Your task to perform on an android device: Add "jbl flip 4" to the cart on newegg, then select checkout. Image 0: 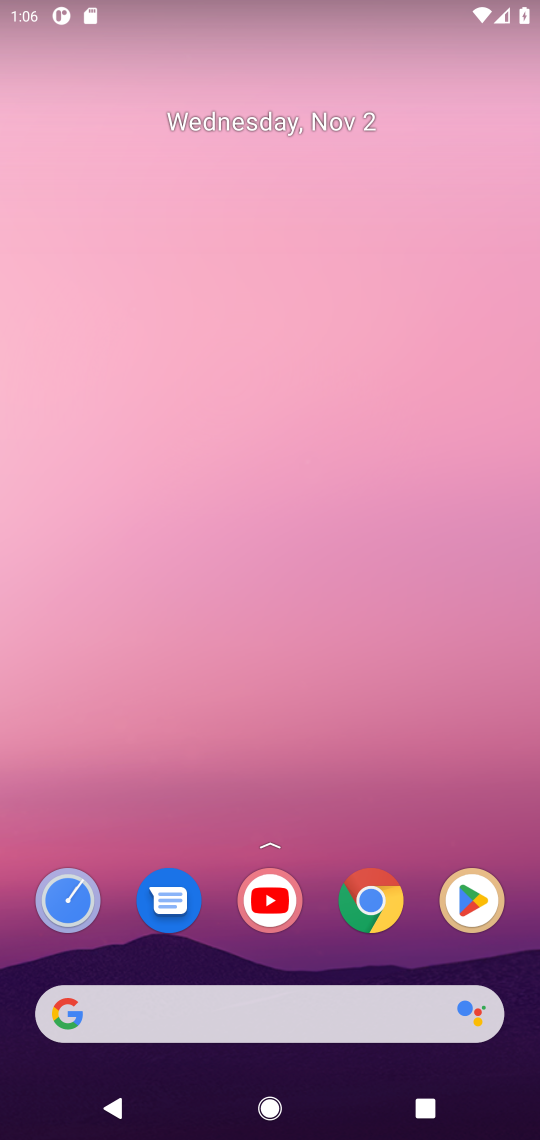
Step 0: click (381, 917)
Your task to perform on an android device: Add "jbl flip 4" to the cart on newegg, then select checkout. Image 1: 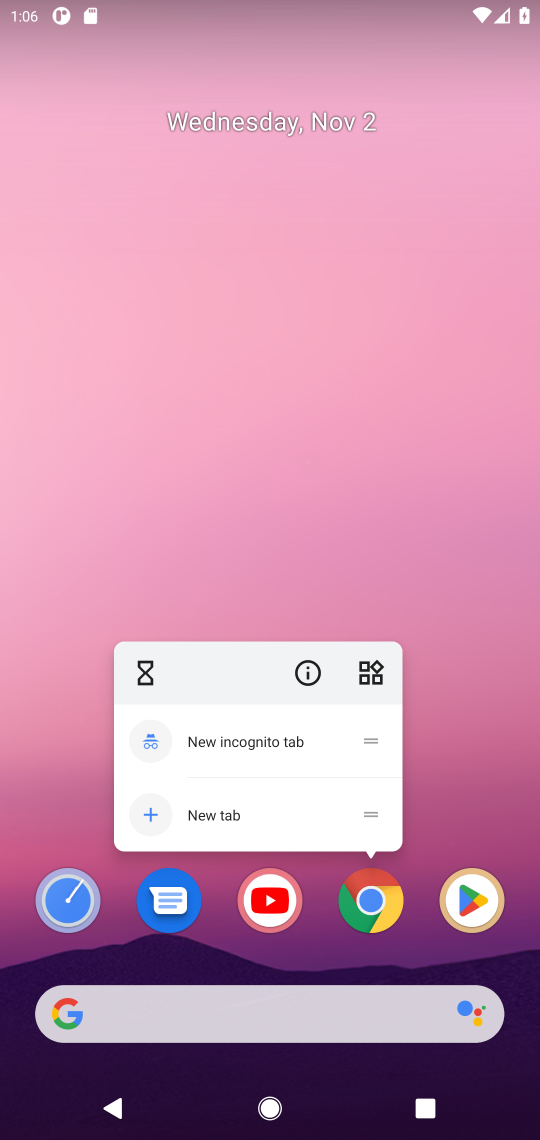
Step 1: click (368, 908)
Your task to perform on an android device: Add "jbl flip 4" to the cart on newegg, then select checkout. Image 2: 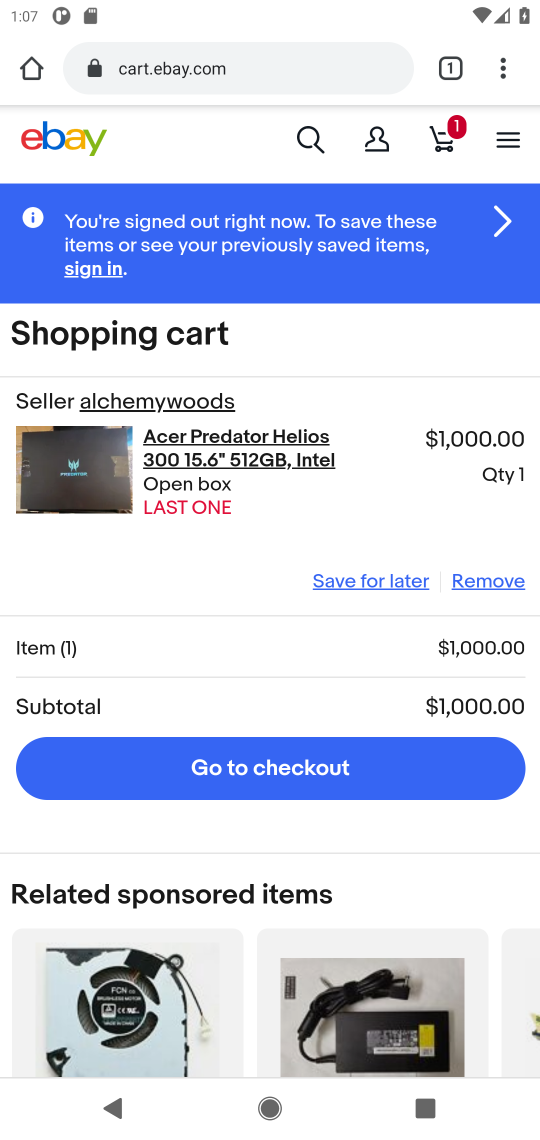
Step 2: click (159, 65)
Your task to perform on an android device: Add "jbl flip 4" to the cart on newegg, then select checkout. Image 3: 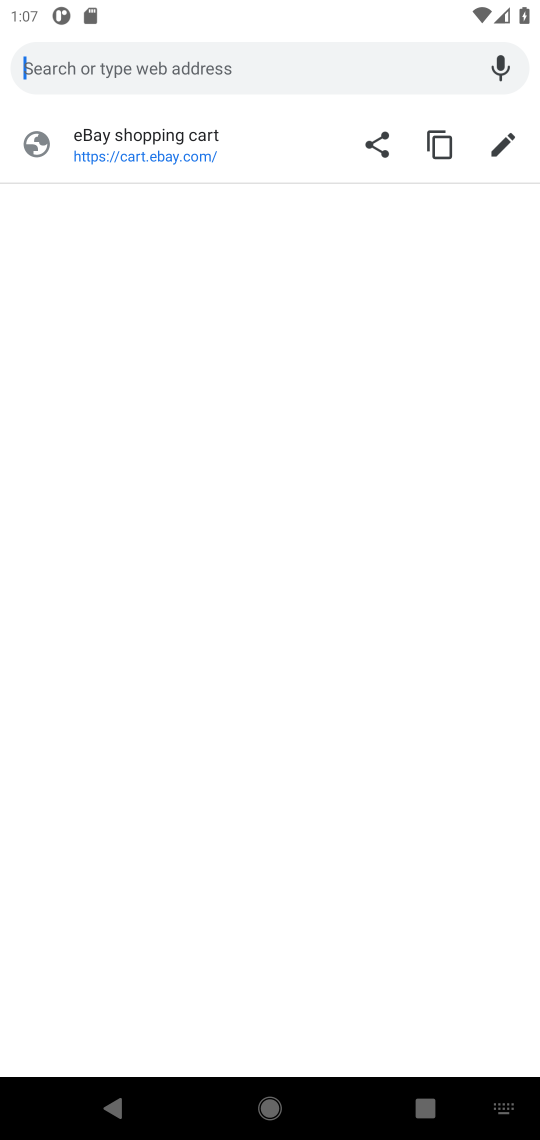
Step 3: type "newegg"
Your task to perform on an android device: Add "jbl flip 4" to the cart on newegg, then select checkout. Image 4: 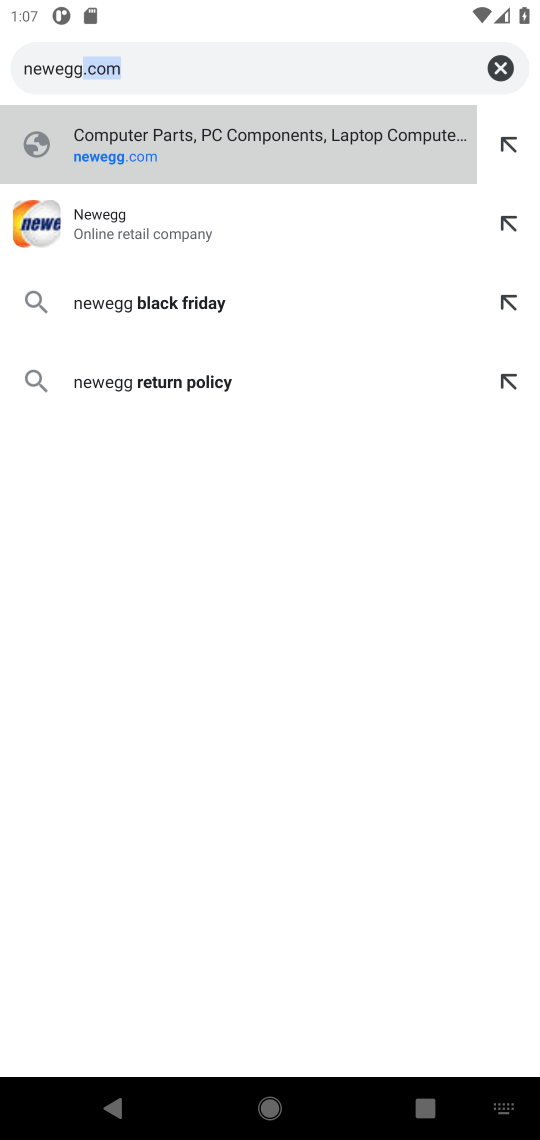
Step 4: type ""
Your task to perform on an android device: Add "jbl flip 4" to the cart on newegg, then select checkout. Image 5: 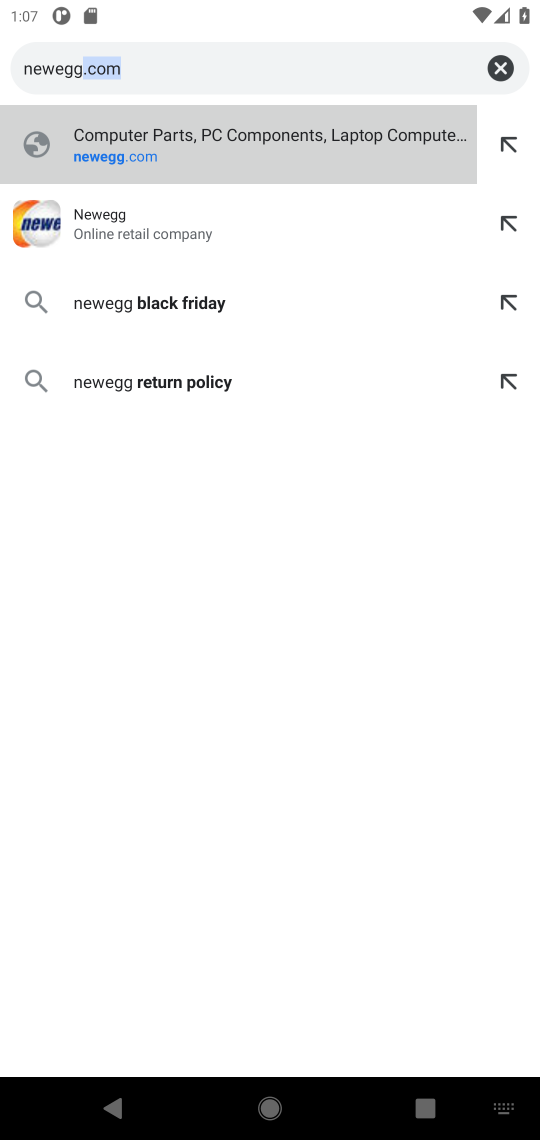
Step 5: click (132, 235)
Your task to perform on an android device: Add "jbl flip 4" to the cart on newegg, then select checkout. Image 6: 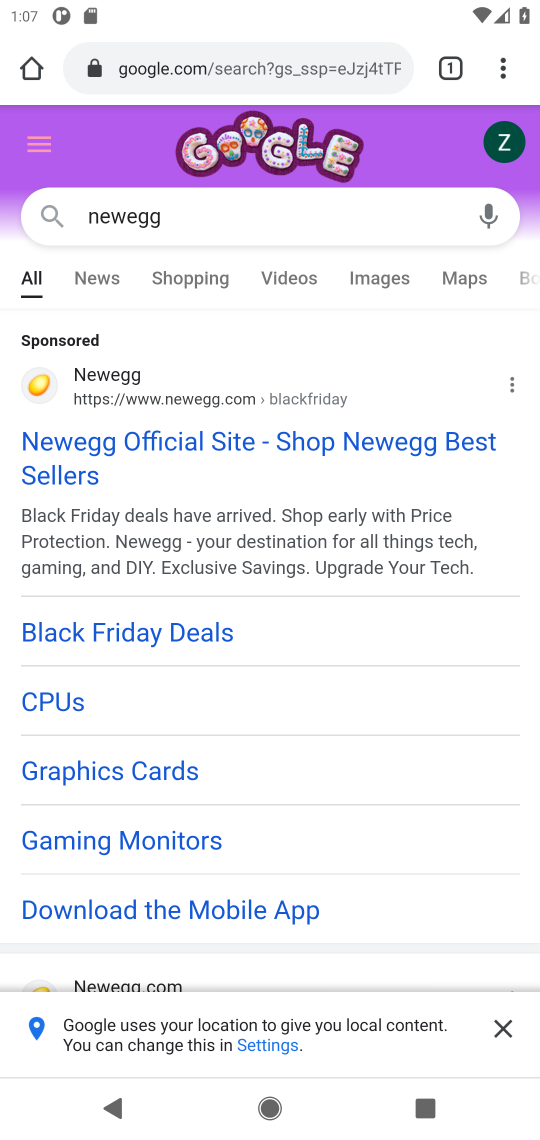
Step 6: drag from (204, 642) to (223, 370)
Your task to perform on an android device: Add "jbl flip 4" to the cart on newegg, then select checkout. Image 7: 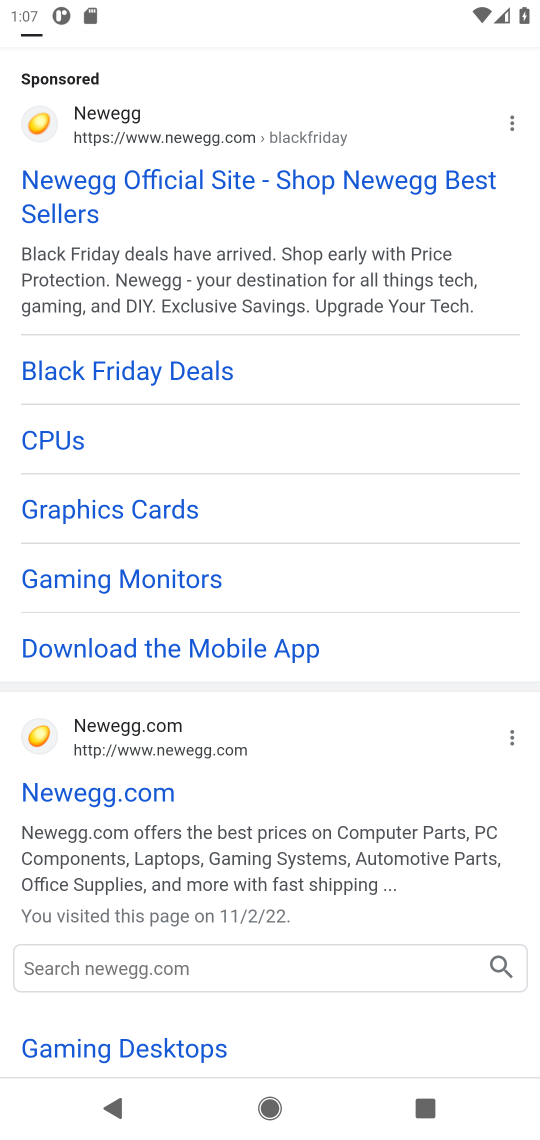
Step 7: drag from (276, 749) to (333, 22)
Your task to perform on an android device: Add "jbl flip 4" to the cart on newegg, then select checkout. Image 8: 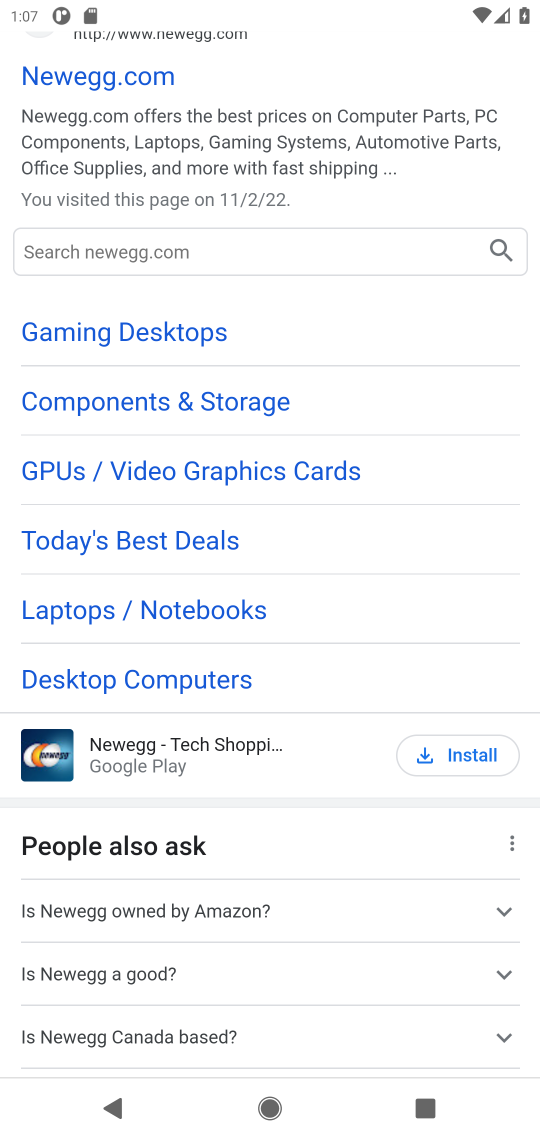
Step 8: drag from (303, 330) to (332, 1084)
Your task to perform on an android device: Add "jbl flip 4" to the cart on newegg, then select checkout. Image 9: 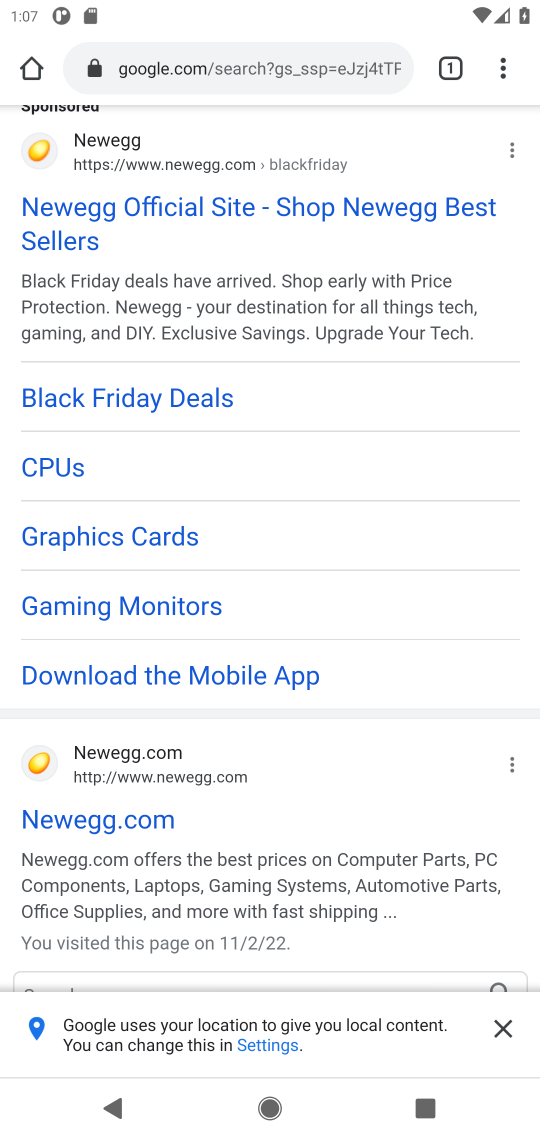
Step 9: drag from (253, 430) to (287, 1075)
Your task to perform on an android device: Add "jbl flip 4" to the cart on newegg, then select checkout. Image 10: 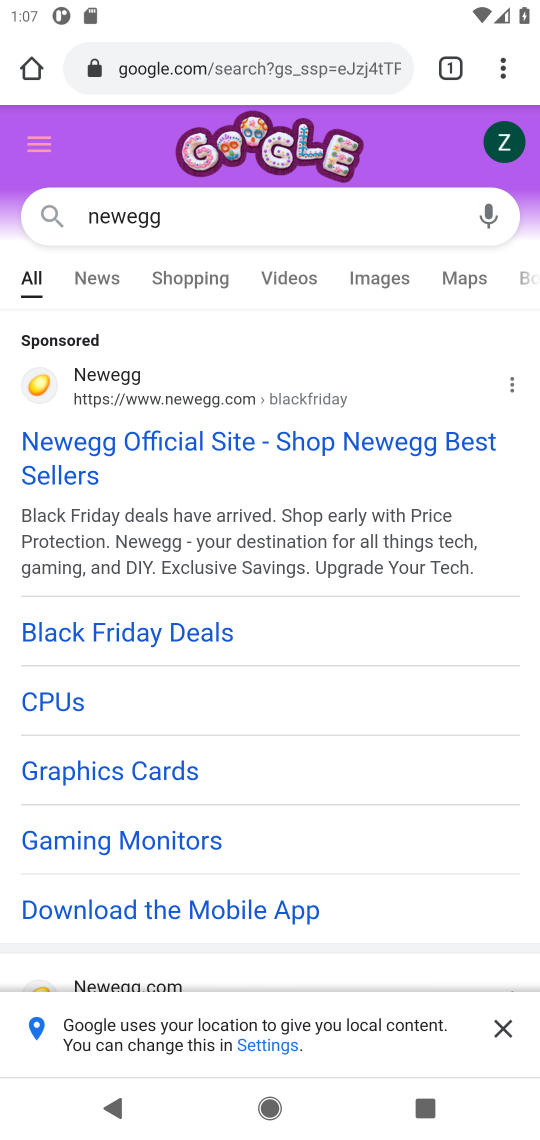
Step 10: click (136, 438)
Your task to perform on an android device: Add "jbl flip 4" to the cart on newegg, then select checkout. Image 11: 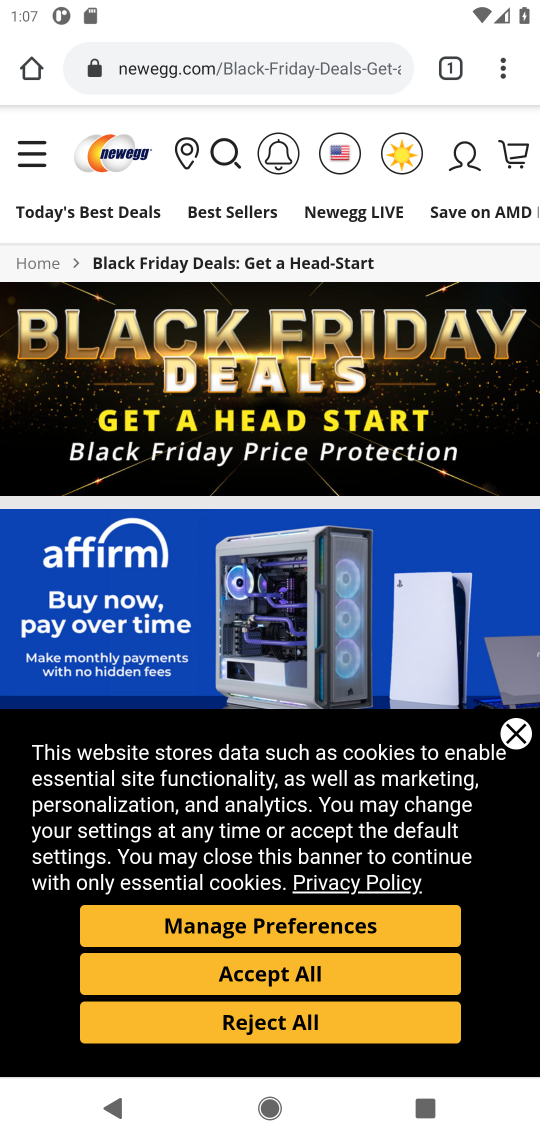
Step 11: click (261, 154)
Your task to perform on an android device: Add "jbl flip 4" to the cart on newegg, then select checkout. Image 12: 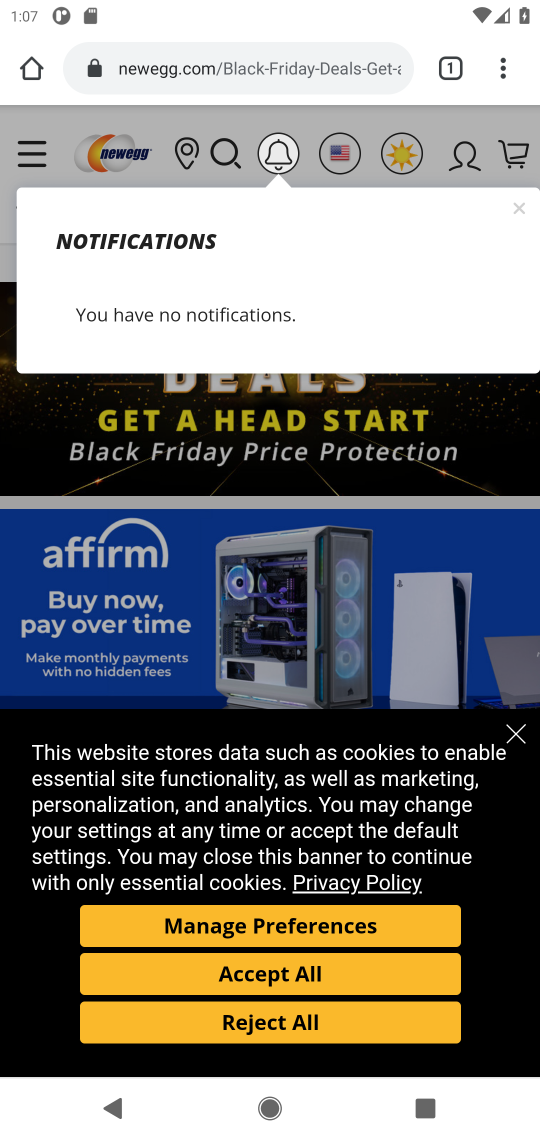
Step 12: click (236, 150)
Your task to perform on an android device: Add "jbl flip 4" to the cart on newegg, then select checkout. Image 13: 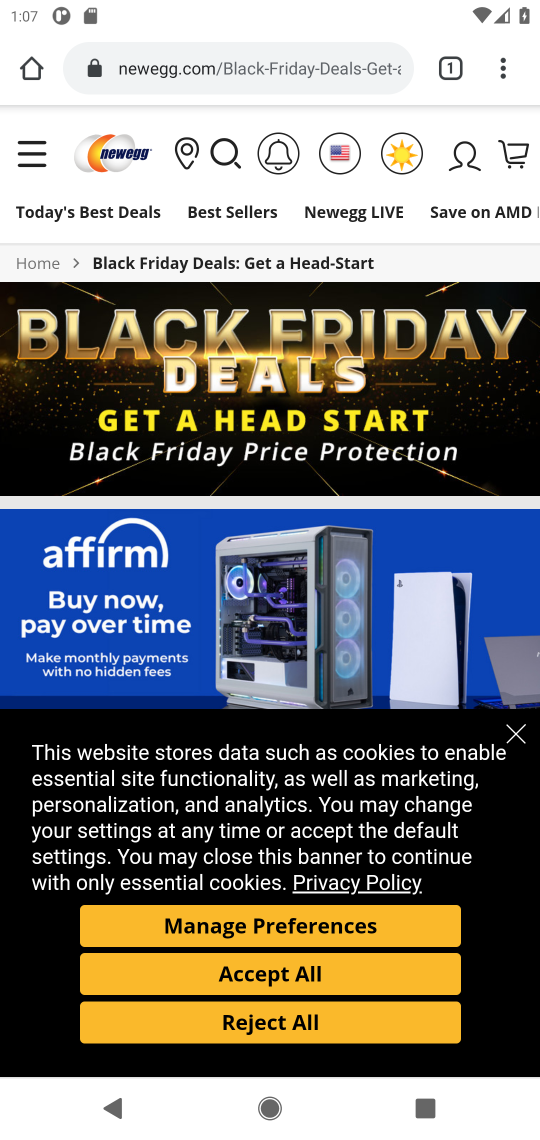
Step 13: click (242, 968)
Your task to perform on an android device: Add "jbl flip 4" to the cart on newegg, then select checkout. Image 14: 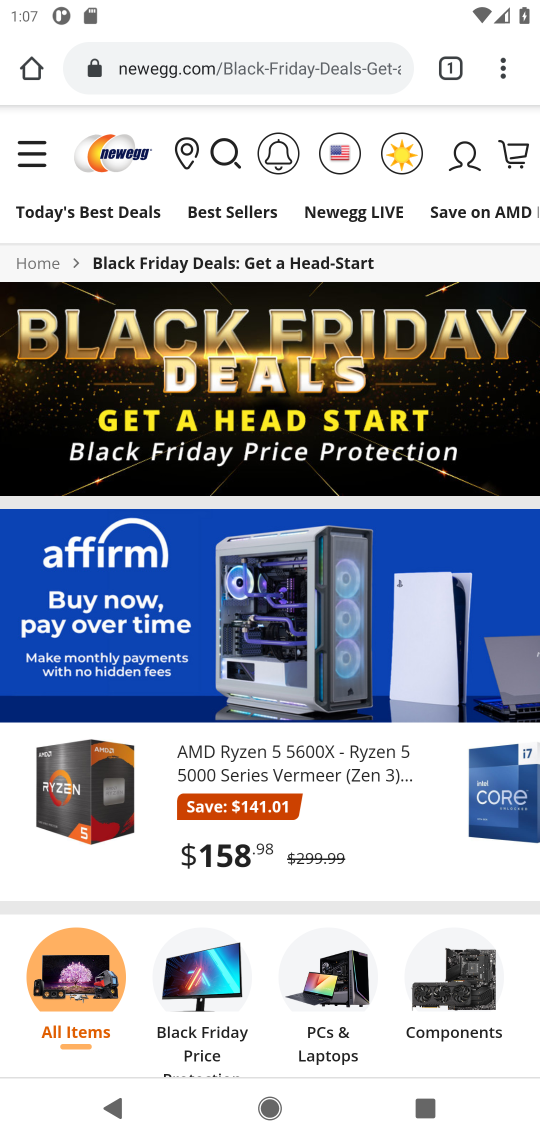
Step 14: click (516, 725)
Your task to perform on an android device: Add "jbl flip 4" to the cart on newegg, then select checkout. Image 15: 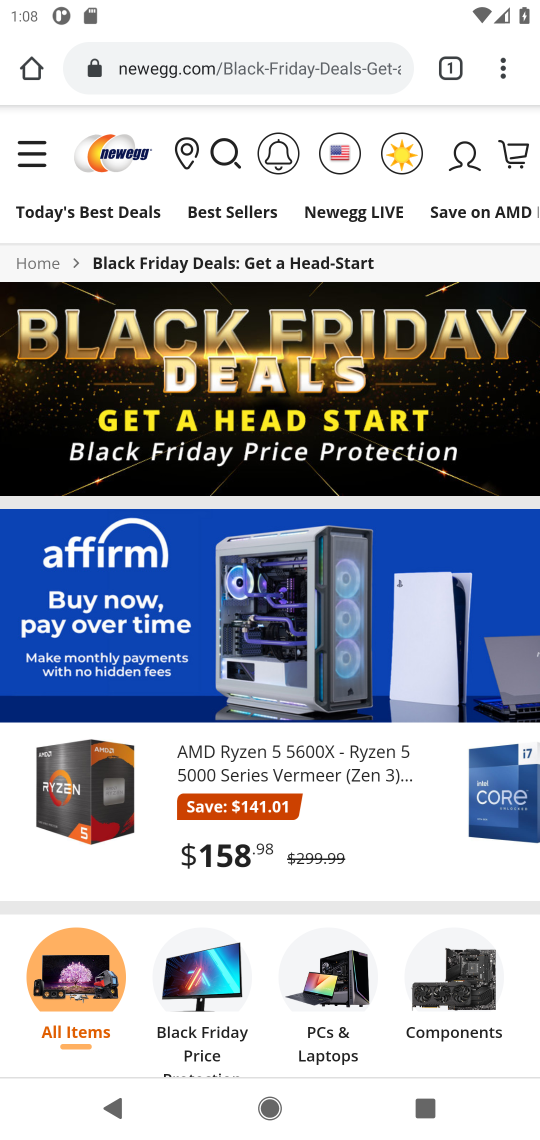
Step 15: click (229, 133)
Your task to perform on an android device: Add "jbl flip 4" to the cart on newegg, then select checkout. Image 16: 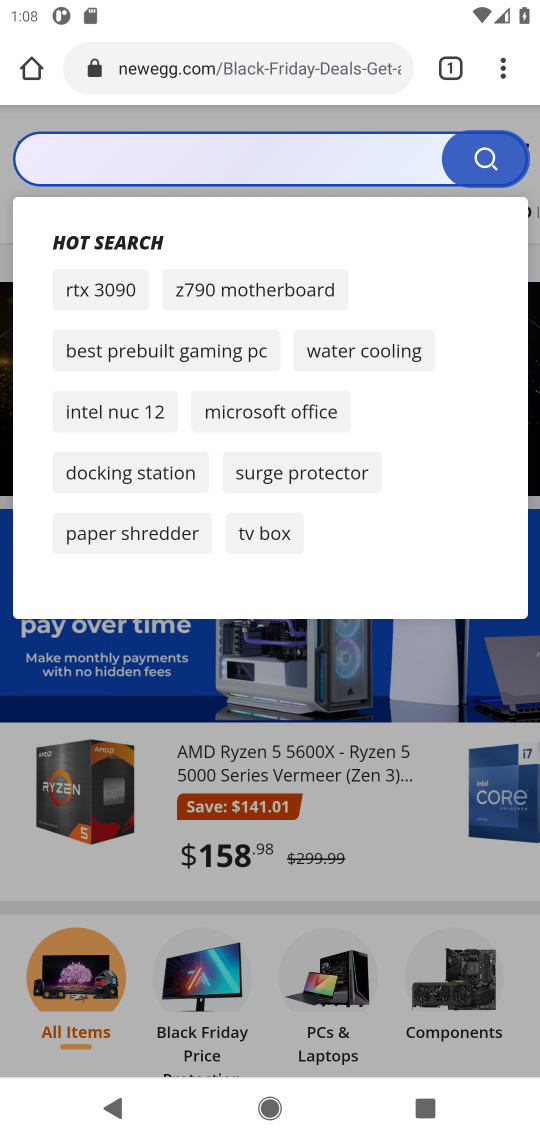
Step 16: click (204, 163)
Your task to perform on an android device: Add "jbl flip 4" to the cart on newegg, then select checkout. Image 17: 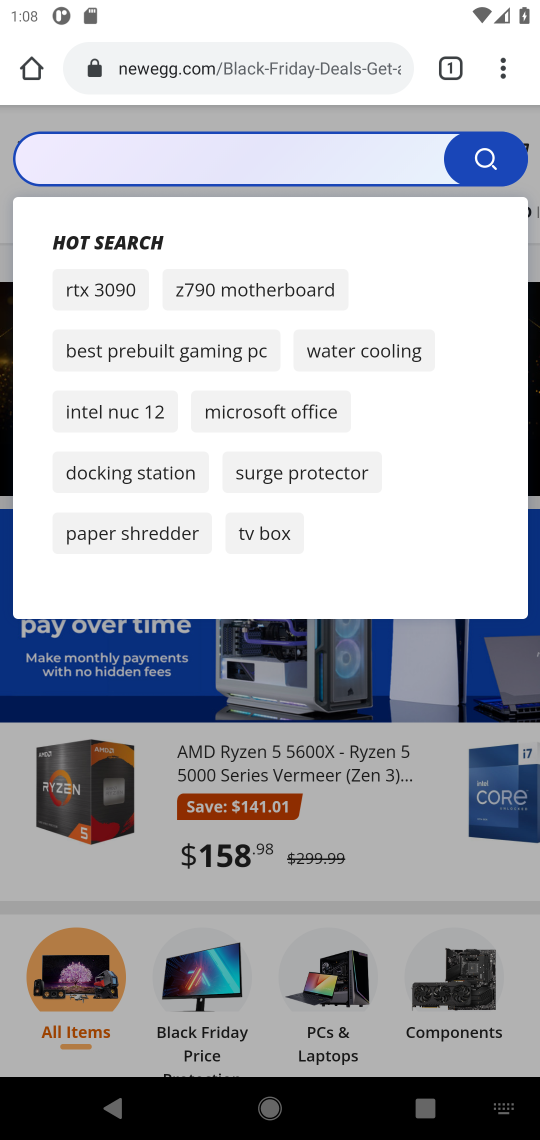
Step 17: type "jbl flip 4"
Your task to perform on an android device: Add "jbl flip 4" to the cart on newegg, then select checkout. Image 18: 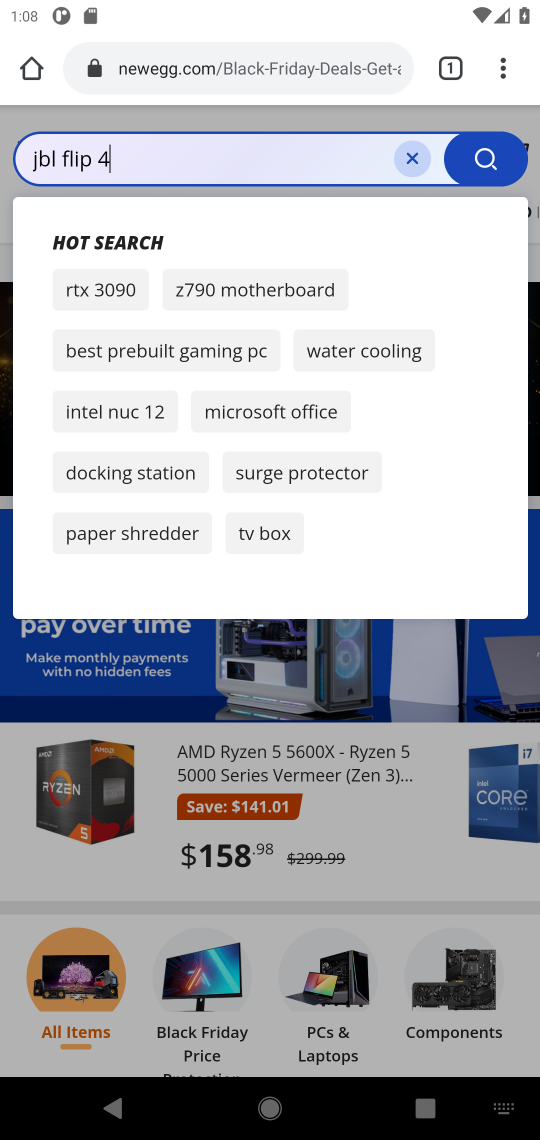
Step 18: type ""
Your task to perform on an android device: Add "jbl flip 4" to the cart on newegg, then select checkout. Image 19: 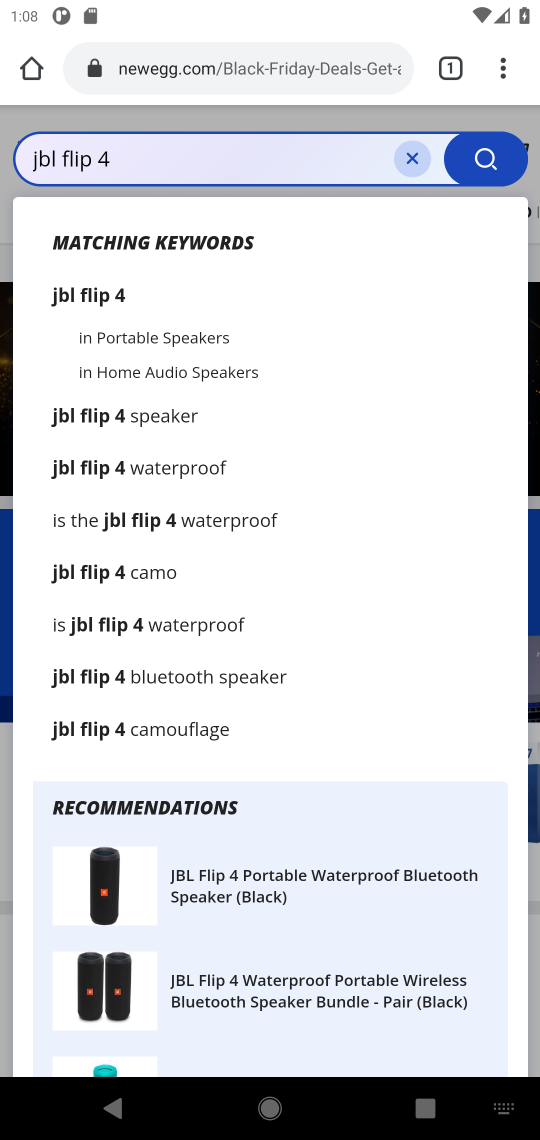
Step 19: click (93, 296)
Your task to perform on an android device: Add "jbl flip 4" to the cart on newegg, then select checkout. Image 20: 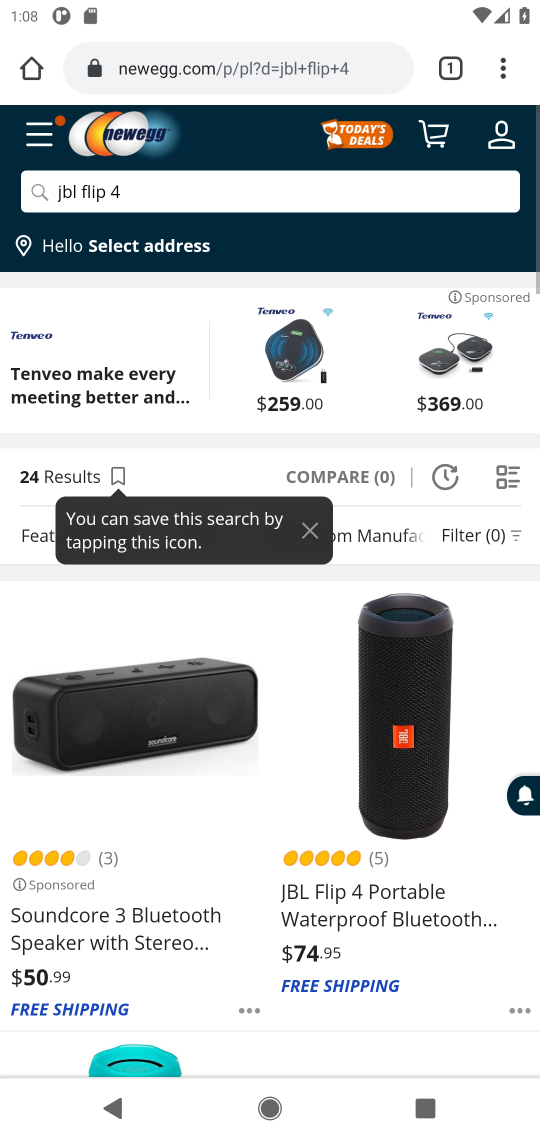
Step 20: click (374, 731)
Your task to perform on an android device: Add "jbl flip 4" to the cart on newegg, then select checkout. Image 21: 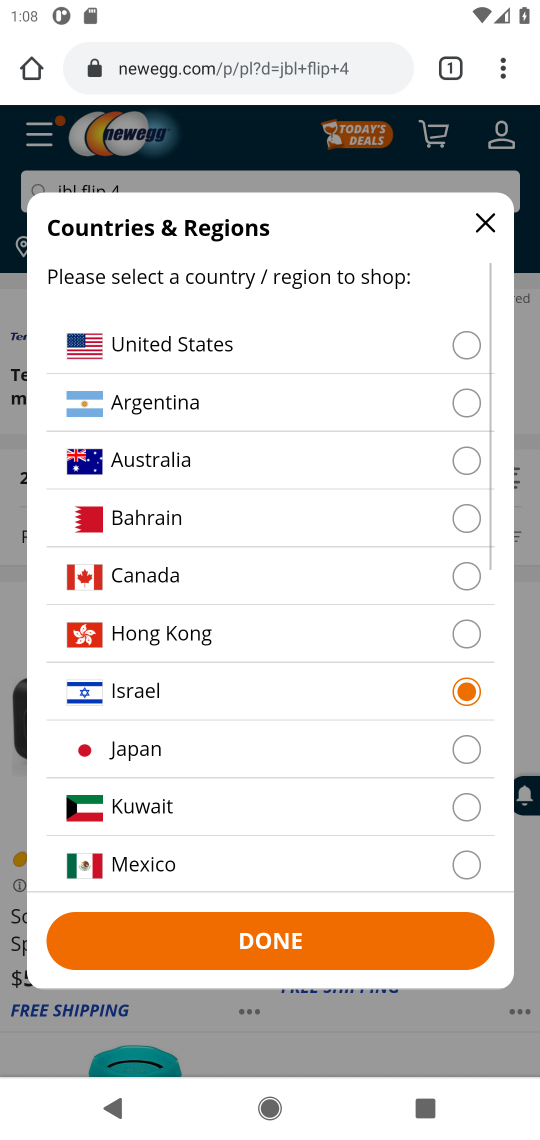
Step 21: click (471, 348)
Your task to perform on an android device: Add "jbl flip 4" to the cart on newegg, then select checkout. Image 22: 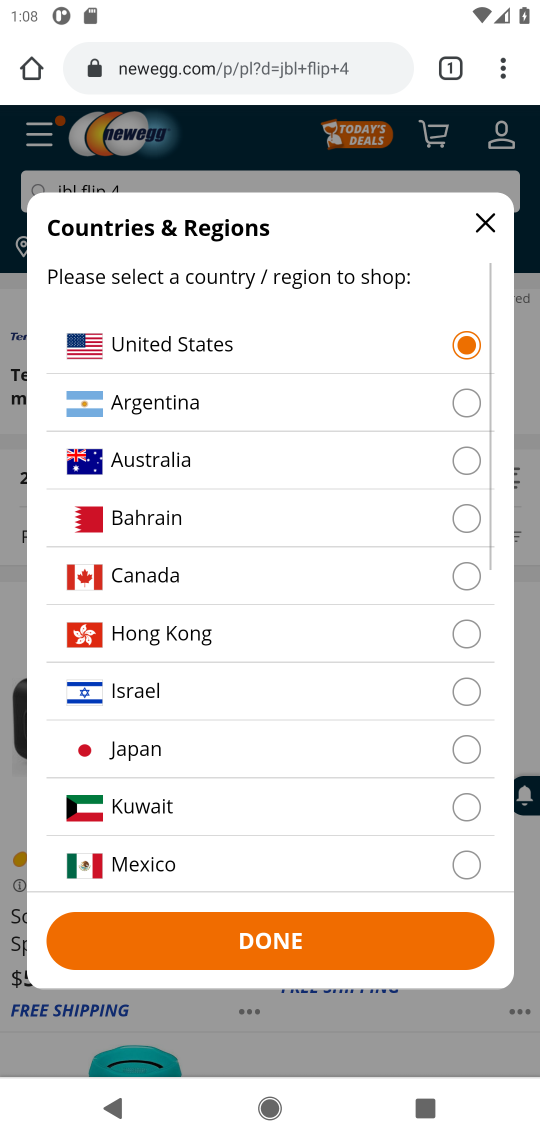
Step 22: click (275, 934)
Your task to perform on an android device: Add "jbl flip 4" to the cart on newegg, then select checkout. Image 23: 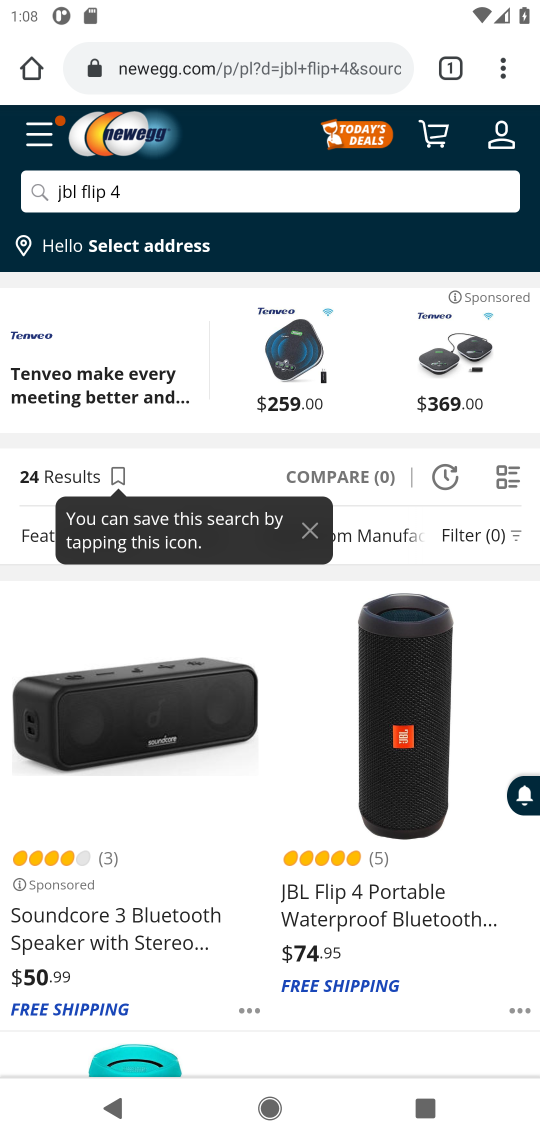
Step 23: click (387, 707)
Your task to perform on an android device: Add "jbl flip 4" to the cart on newegg, then select checkout. Image 24: 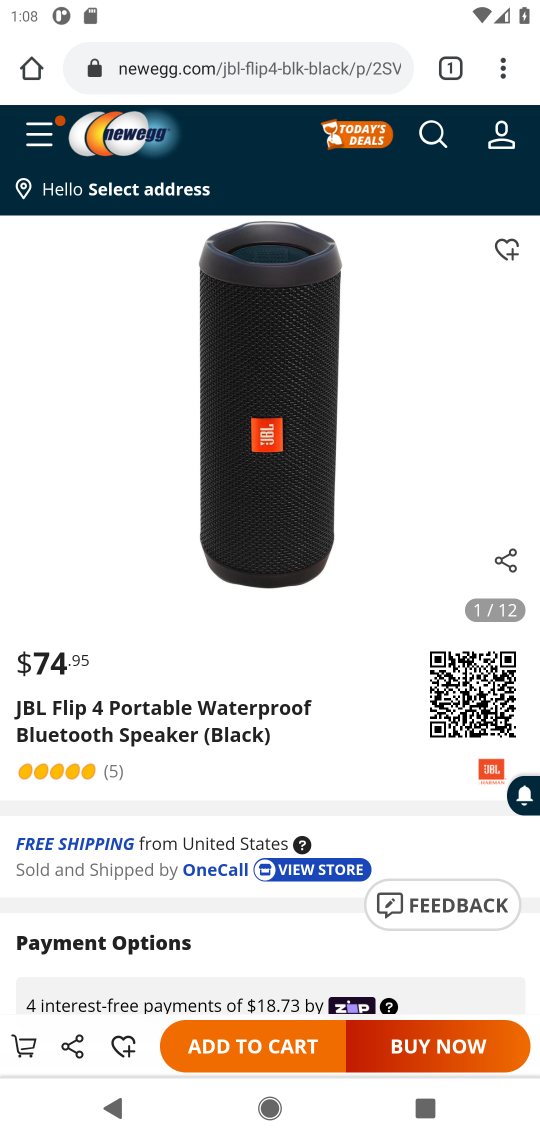
Step 24: click (253, 1058)
Your task to perform on an android device: Add "jbl flip 4" to the cart on newegg, then select checkout. Image 25: 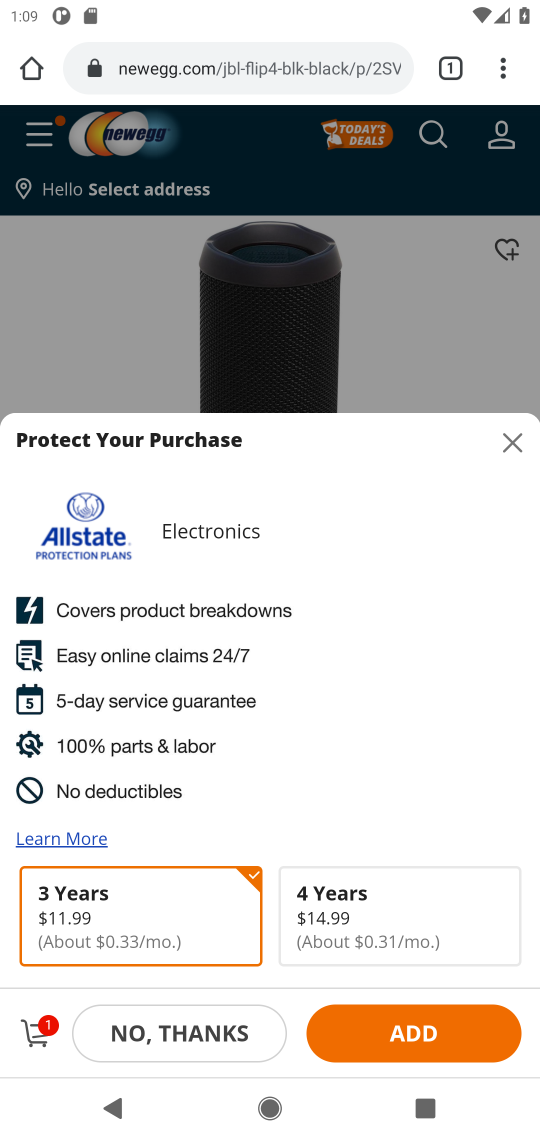
Step 25: click (517, 439)
Your task to perform on an android device: Add "jbl flip 4" to the cart on newegg, then select checkout. Image 26: 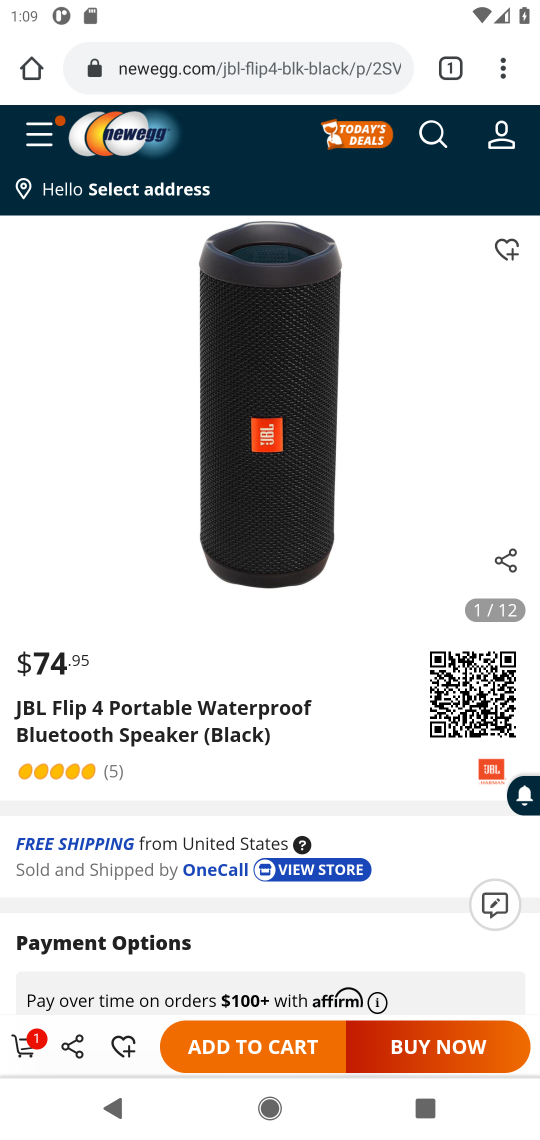
Step 26: click (35, 1045)
Your task to perform on an android device: Add "jbl flip 4" to the cart on newegg, then select checkout. Image 27: 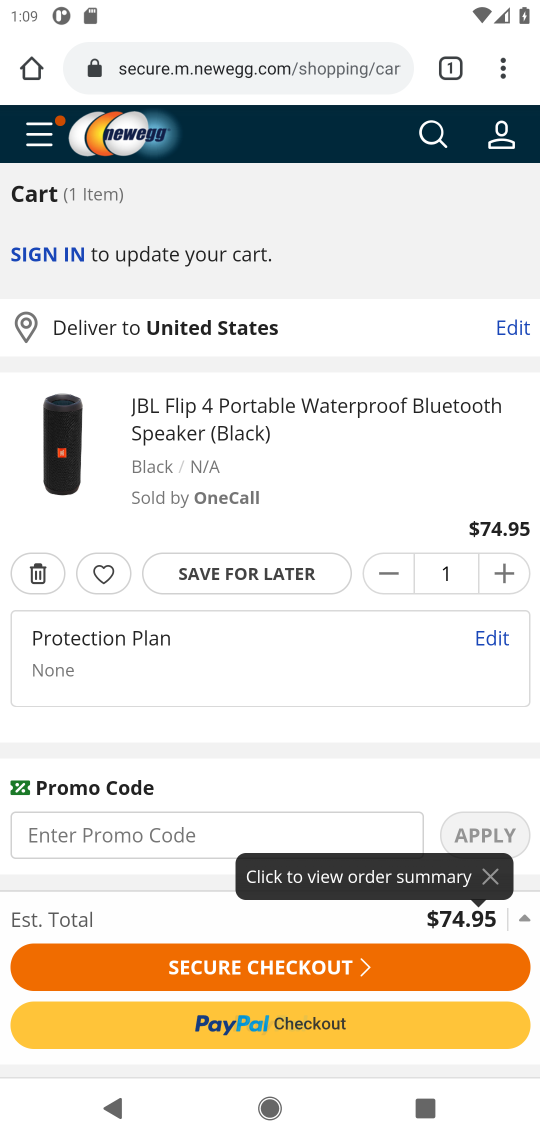
Step 27: click (223, 962)
Your task to perform on an android device: Add "jbl flip 4" to the cart on newegg, then select checkout. Image 28: 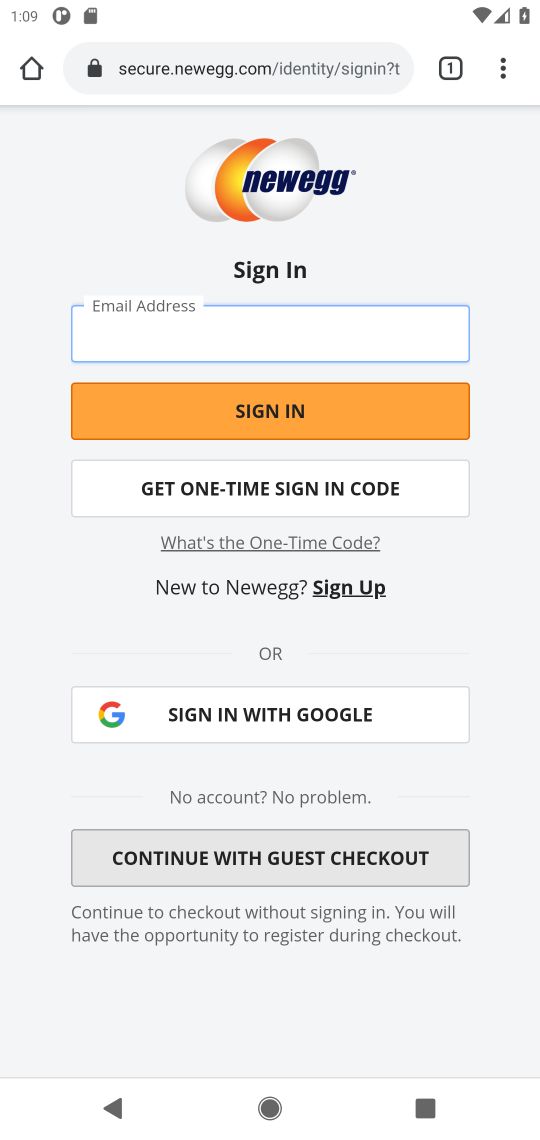
Step 28: task complete